Your task to perform on an android device: Search for "bose quietcomfort 35" on ebay, select the first entry, add it to the cart, then select checkout. Image 0: 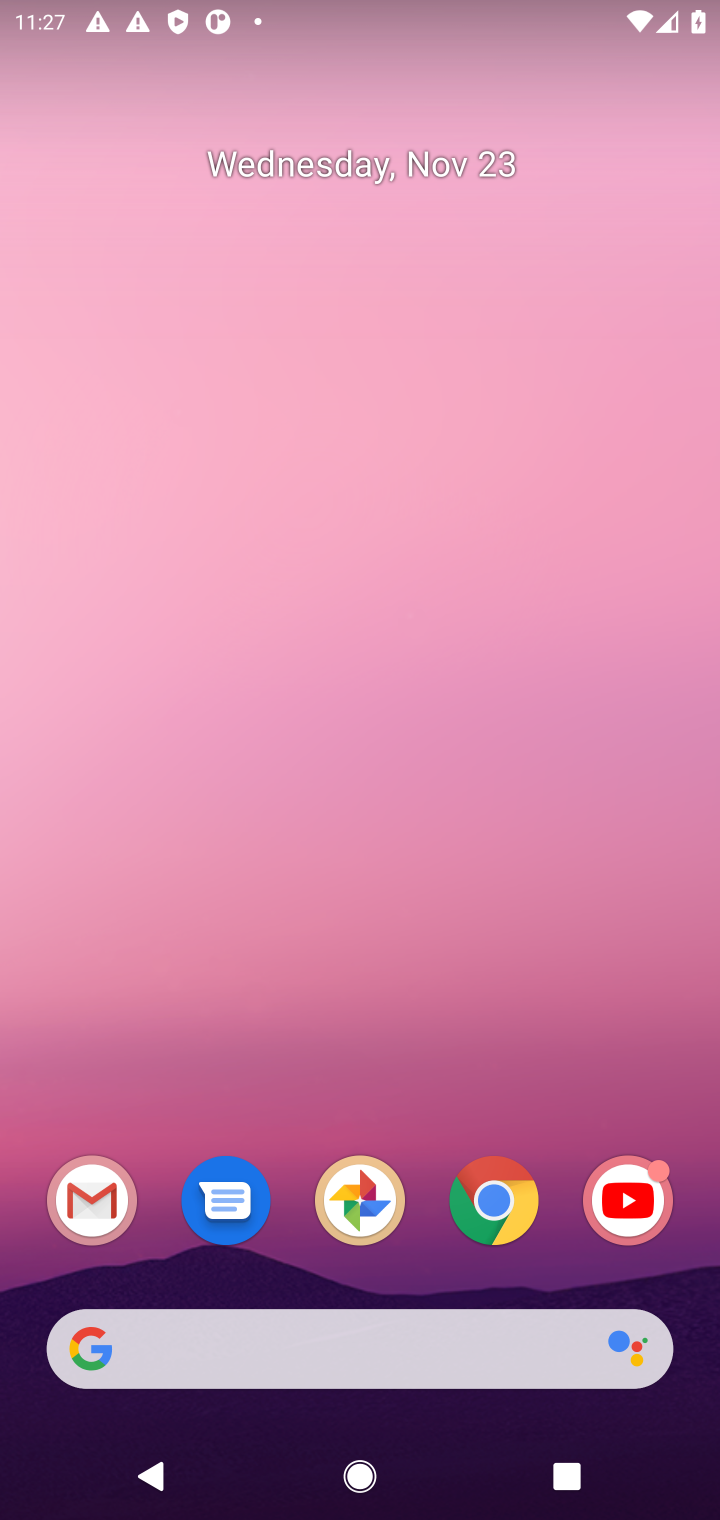
Step 0: click (469, 1336)
Your task to perform on an android device: Search for "bose quietcomfort 35" on ebay, select the first entry, add it to the cart, then select checkout. Image 1: 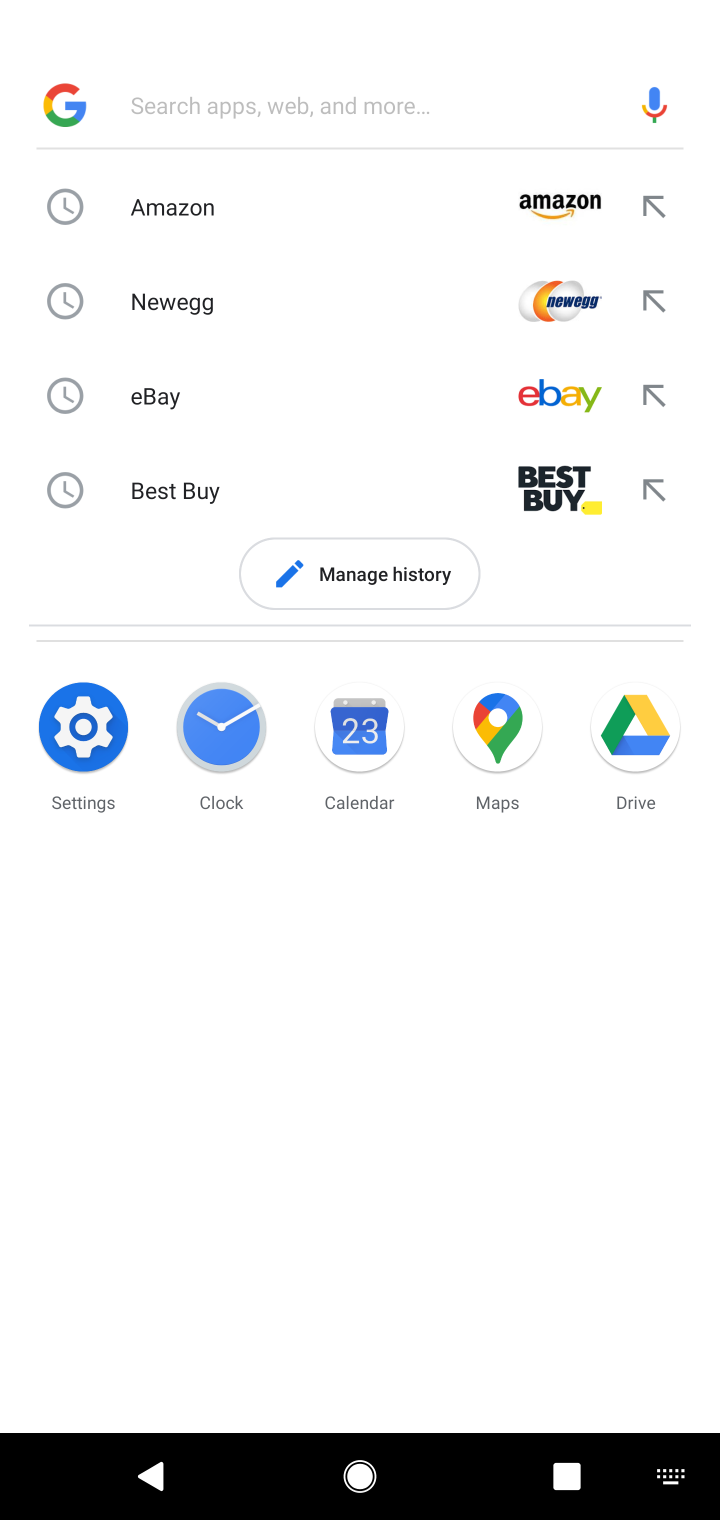
Step 1: type "ebay.com"
Your task to perform on an android device: Search for "bose quietcomfort 35" on ebay, select the first entry, add it to the cart, then select checkout. Image 2: 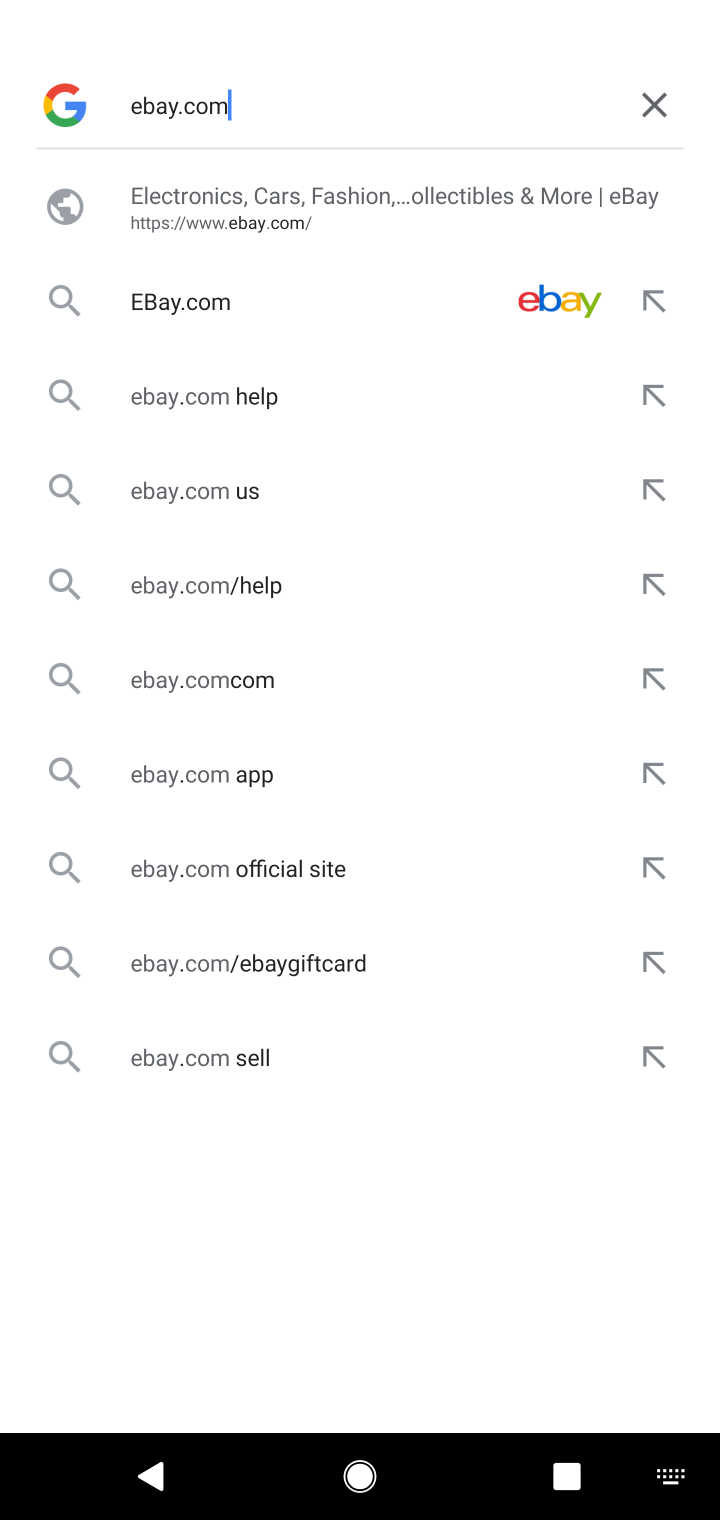
Step 2: click (309, 246)
Your task to perform on an android device: Search for "bose quietcomfort 35" on ebay, select the first entry, add it to the cart, then select checkout. Image 3: 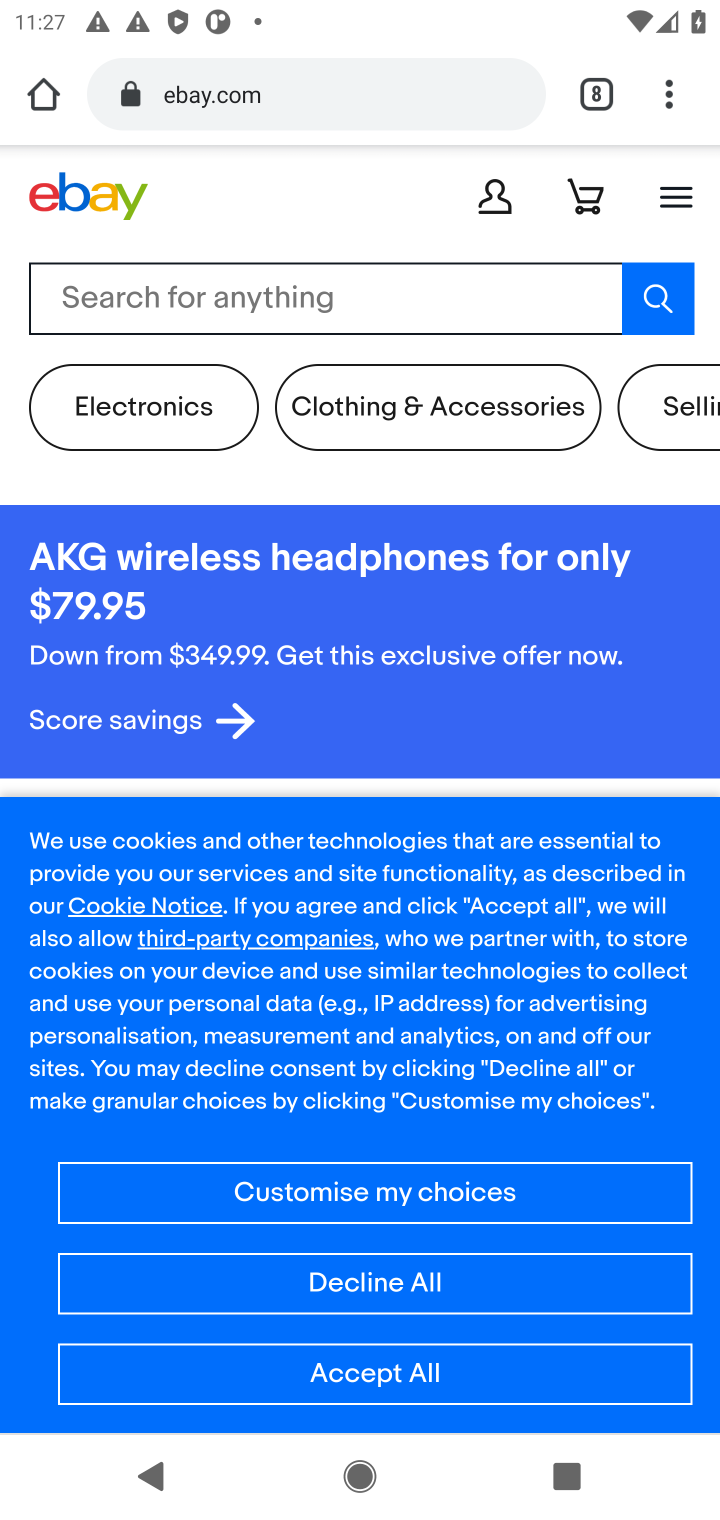
Step 3: click (387, 290)
Your task to perform on an android device: Search for "bose quietcomfort 35" on ebay, select the first entry, add it to the cart, then select checkout. Image 4: 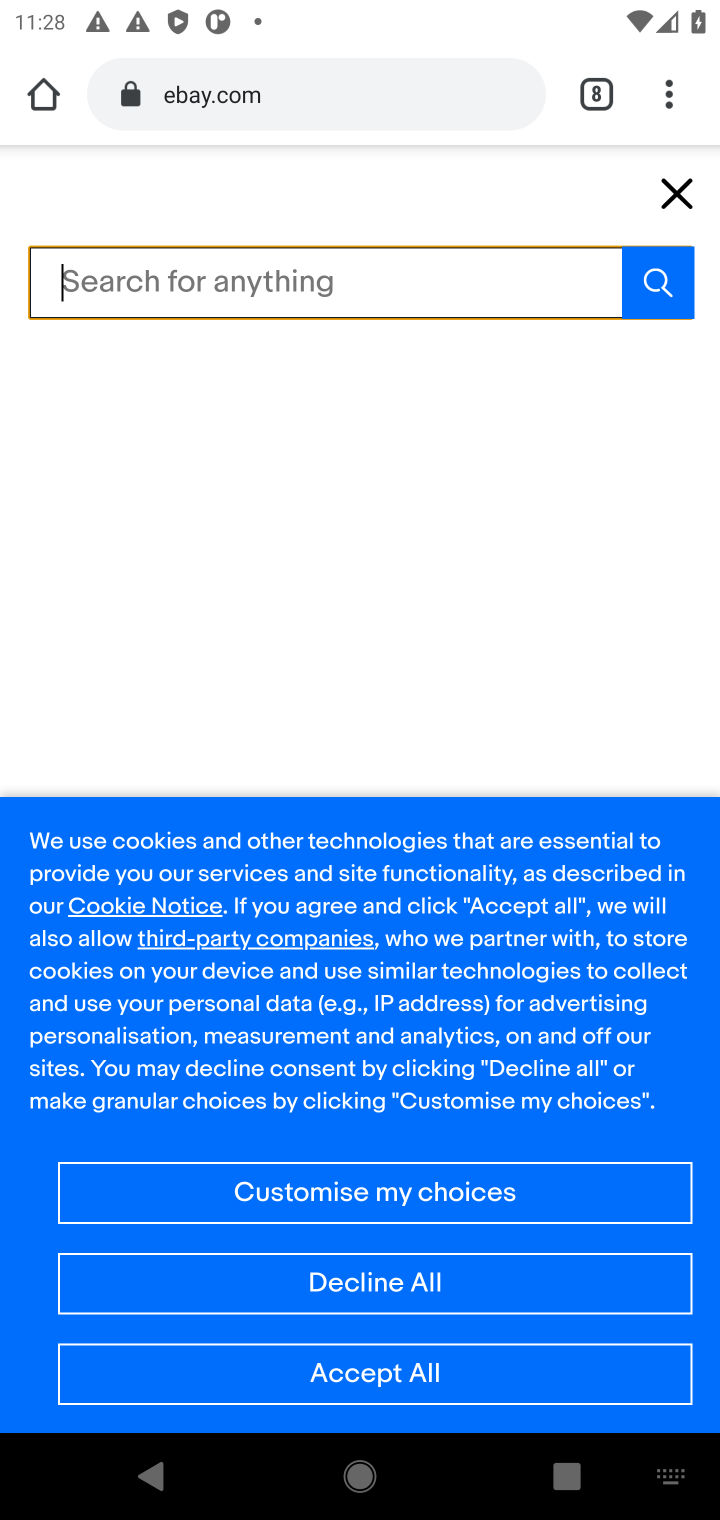
Step 4: type "bose quietcomfort 35"
Your task to perform on an android device: Search for "bose quietcomfort 35" on ebay, select the first entry, add it to the cart, then select checkout. Image 5: 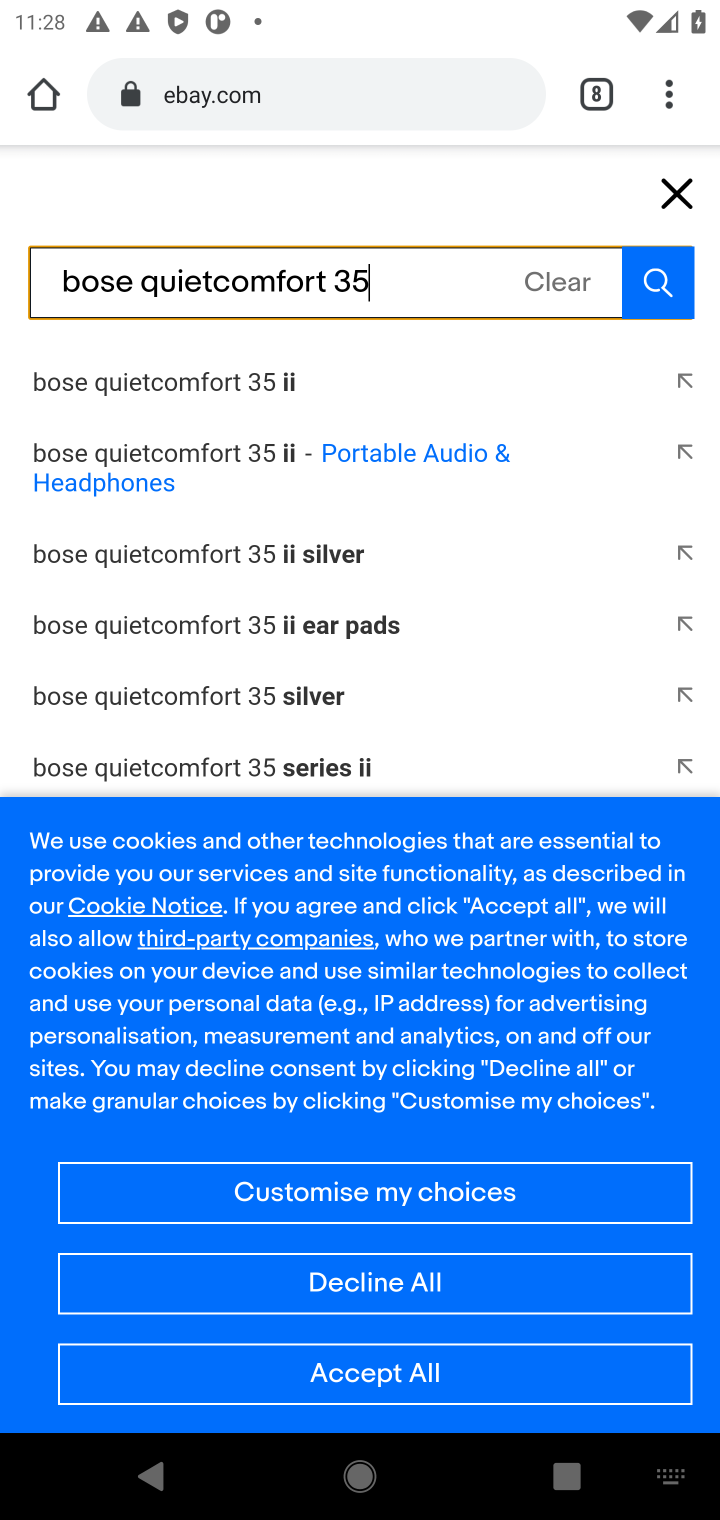
Step 5: click (652, 302)
Your task to perform on an android device: Search for "bose quietcomfort 35" on ebay, select the first entry, add it to the cart, then select checkout. Image 6: 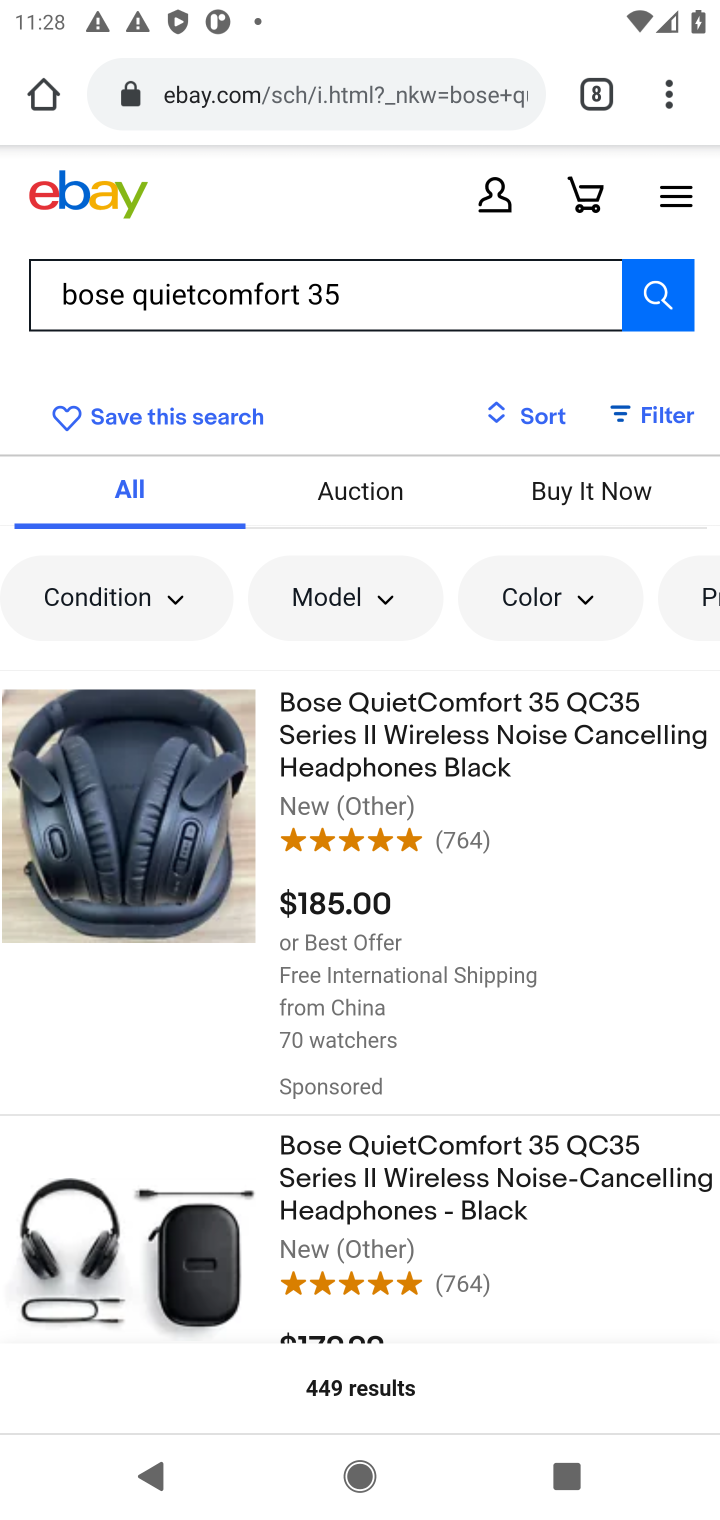
Step 6: click (466, 730)
Your task to perform on an android device: Search for "bose quietcomfort 35" on ebay, select the first entry, add it to the cart, then select checkout. Image 7: 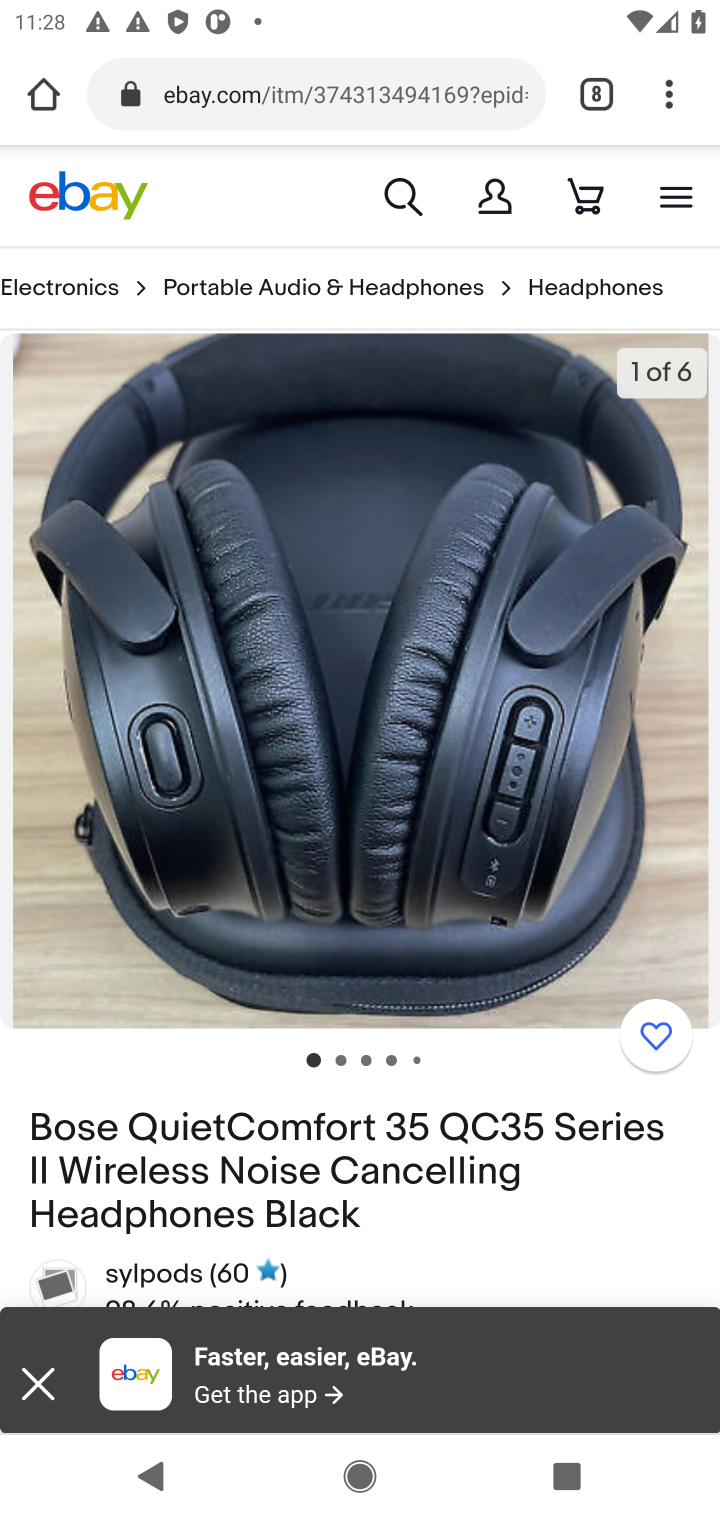
Step 7: click (19, 1396)
Your task to perform on an android device: Search for "bose quietcomfort 35" on ebay, select the first entry, add it to the cart, then select checkout. Image 8: 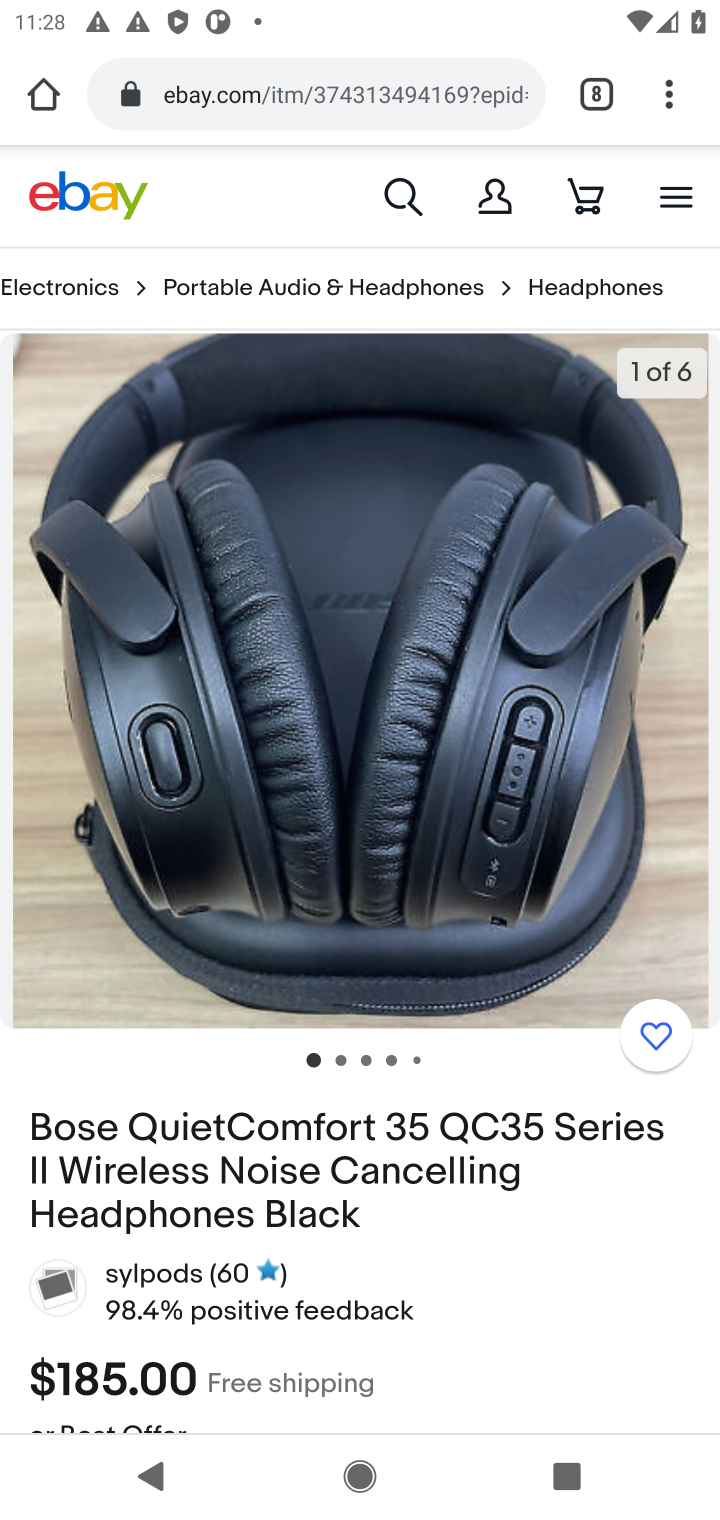
Step 8: drag from (374, 1278) to (439, 469)
Your task to perform on an android device: Search for "bose quietcomfort 35" on ebay, select the first entry, add it to the cart, then select checkout. Image 9: 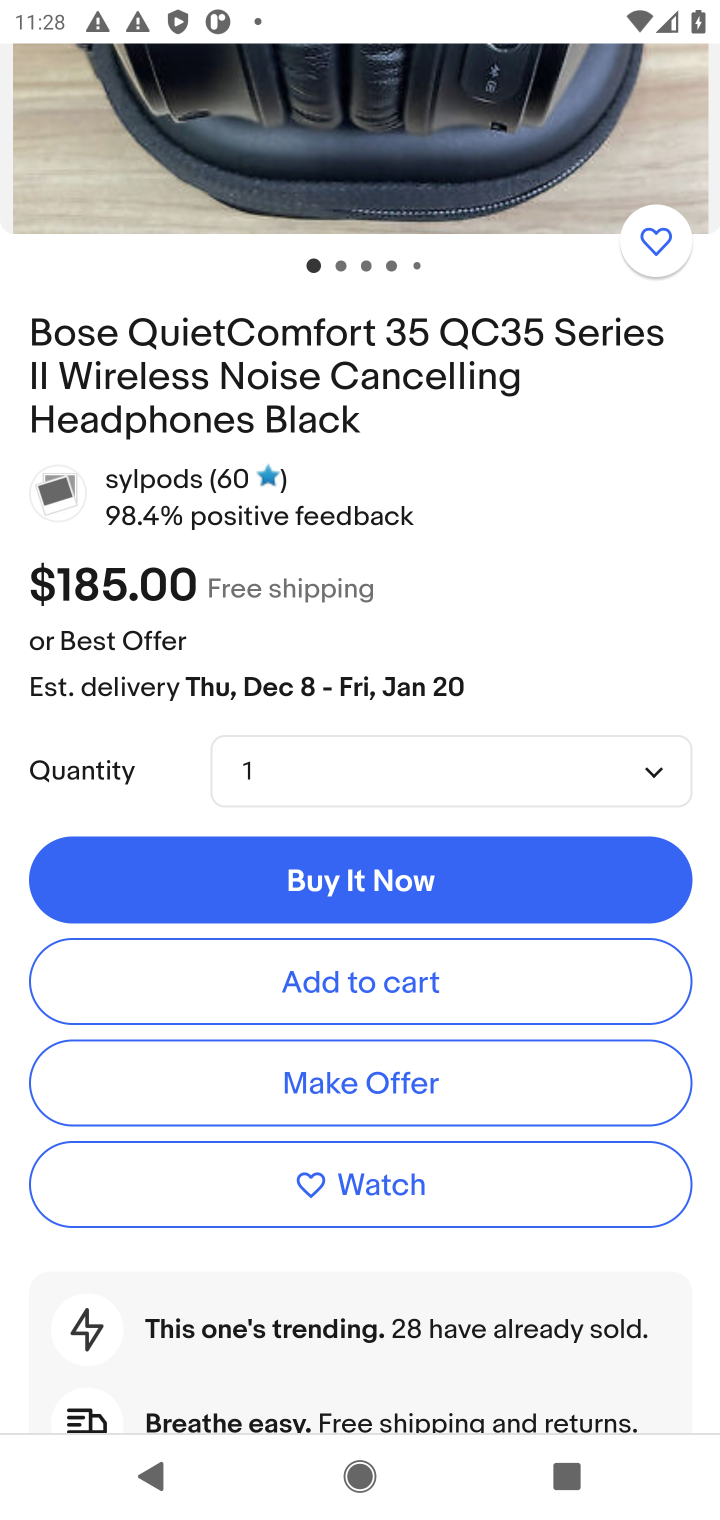
Step 9: click (412, 988)
Your task to perform on an android device: Search for "bose quietcomfort 35" on ebay, select the first entry, add it to the cart, then select checkout. Image 10: 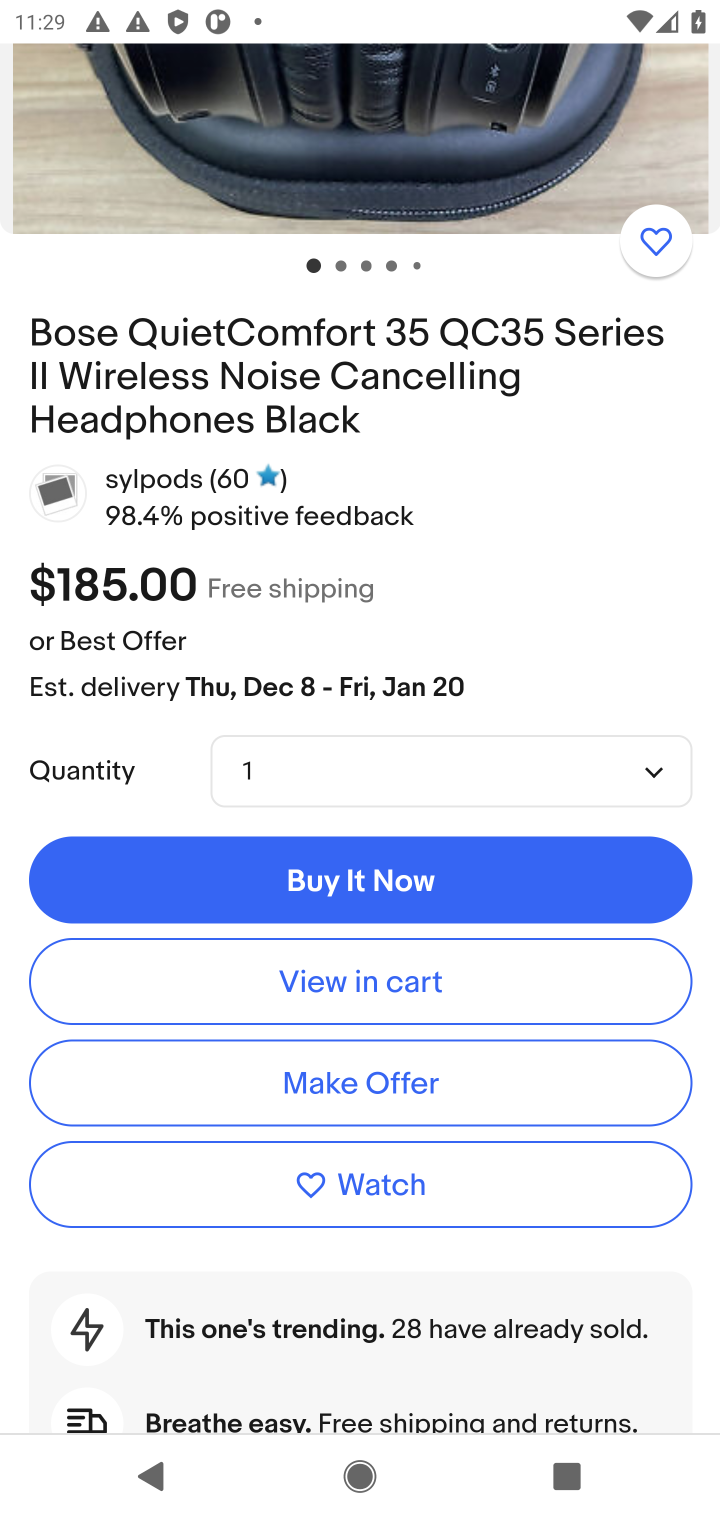
Step 10: task complete